Your task to perform on an android device: See recent photos Image 0: 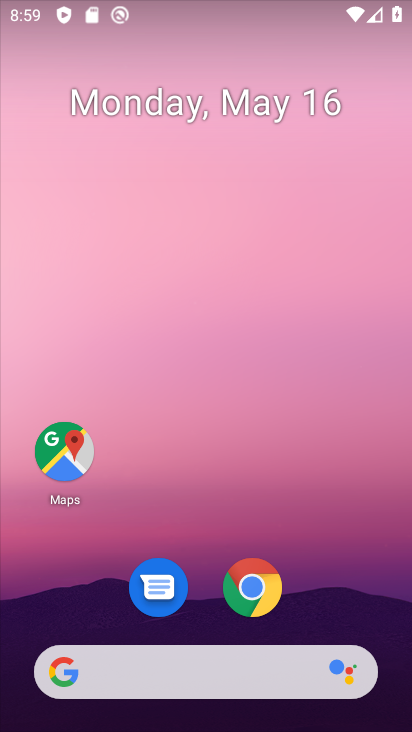
Step 0: drag from (98, 631) to (200, 124)
Your task to perform on an android device: See recent photos Image 1: 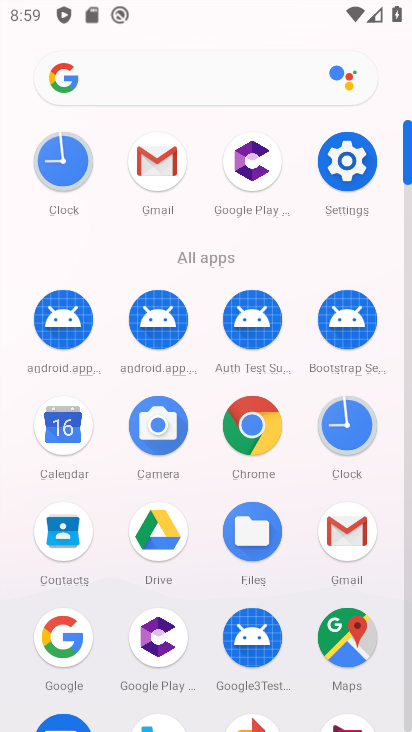
Step 1: drag from (164, 586) to (216, 333)
Your task to perform on an android device: See recent photos Image 2: 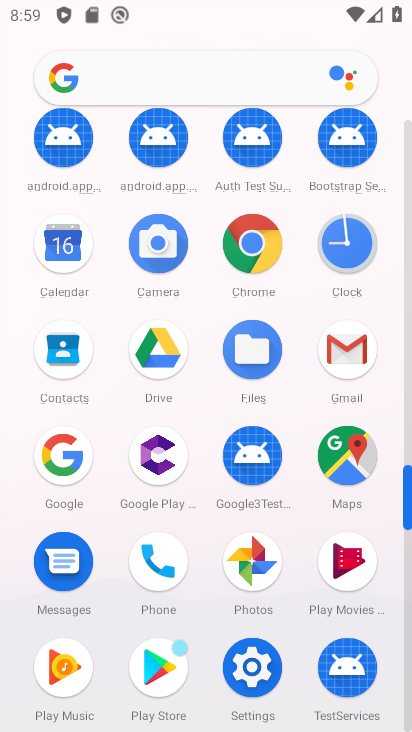
Step 2: click (254, 587)
Your task to perform on an android device: See recent photos Image 3: 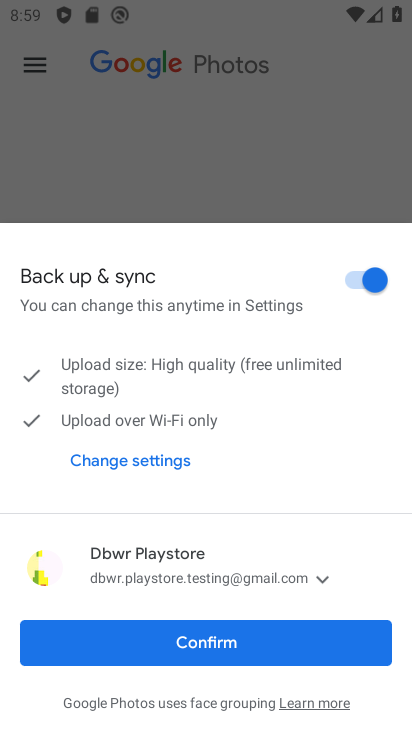
Step 3: click (196, 656)
Your task to perform on an android device: See recent photos Image 4: 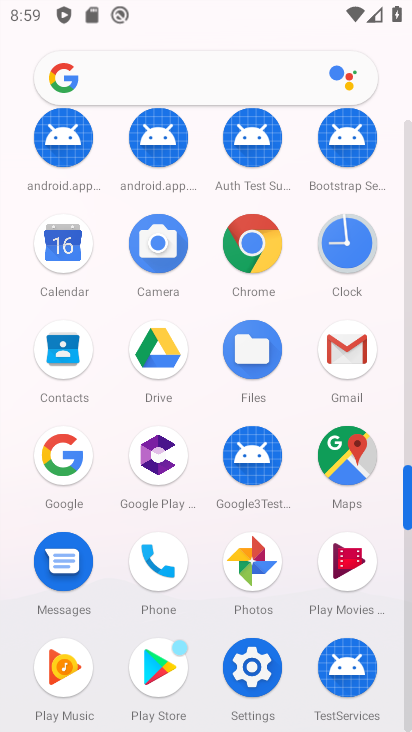
Step 4: click (247, 572)
Your task to perform on an android device: See recent photos Image 5: 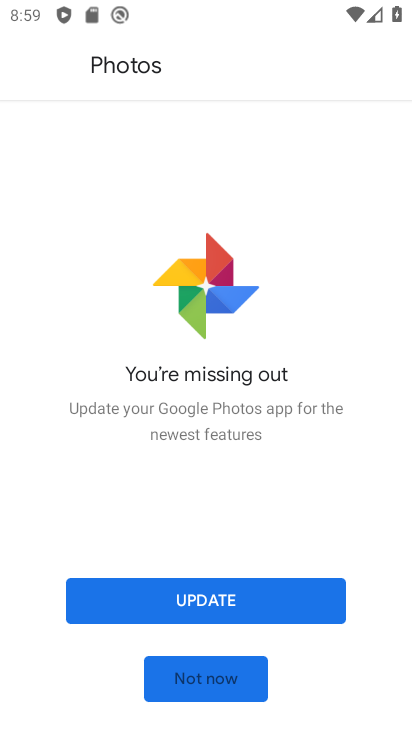
Step 5: click (255, 591)
Your task to perform on an android device: See recent photos Image 6: 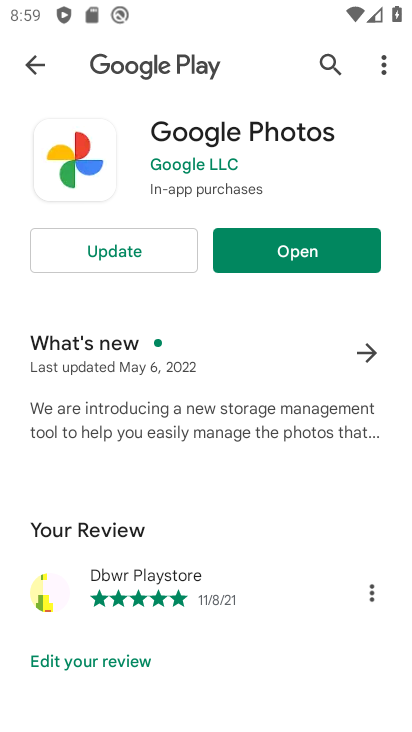
Step 6: click (131, 254)
Your task to perform on an android device: See recent photos Image 7: 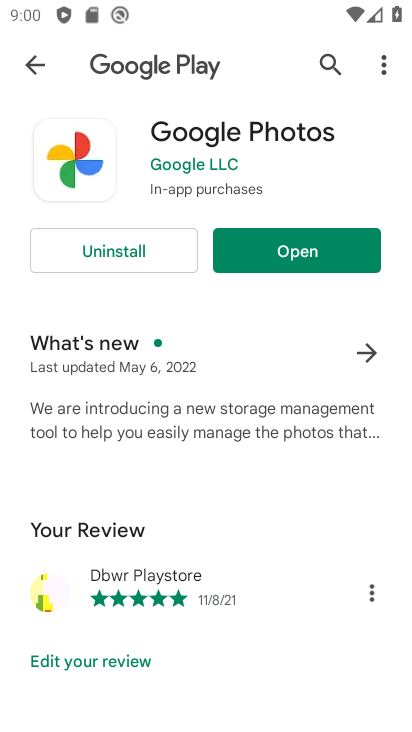
Step 7: click (298, 244)
Your task to perform on an android device: See recent photos Image 8: 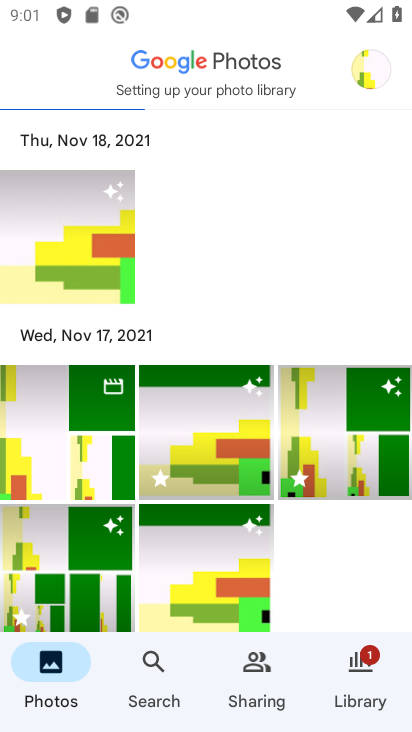
Step 8: task complete